Your task to perform on an android device: Search for Italian restaurants on Maps Image 0: 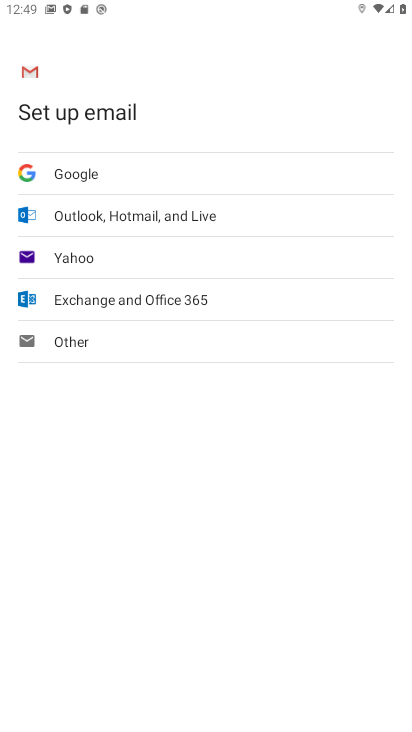
Step 0: press home button
Your task to perform on an android device: Search for Italian restaurants on Maps Image 1: 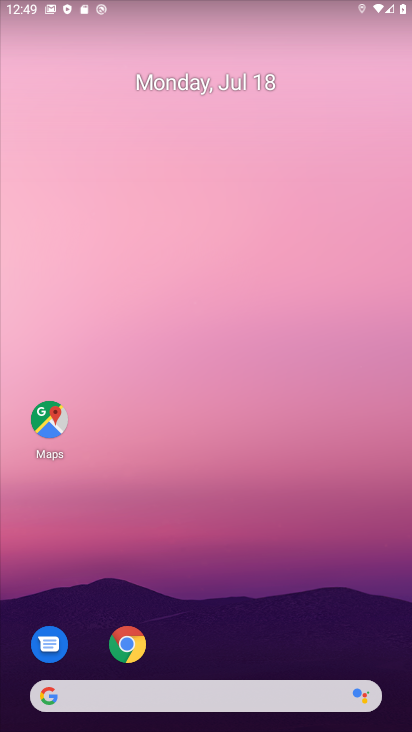
Step 1: click (43, 439)
Your task to perform on an android device: Search for Italian restaurants on Maps Image 2: 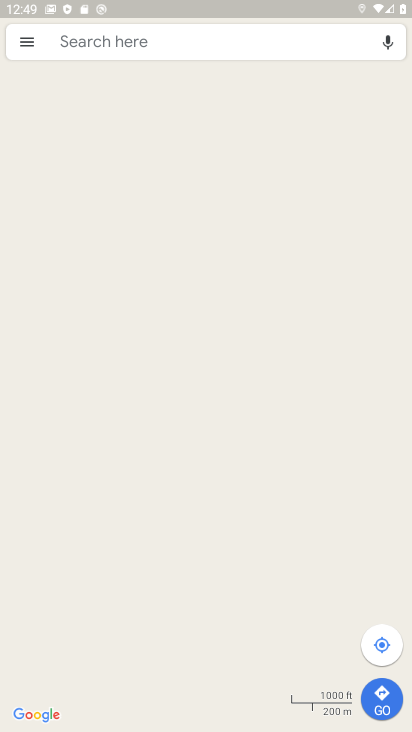
Step 2: click (164, 40)
Your task to perform on an android device: Search for Italian restaurants on Maps Image 3: 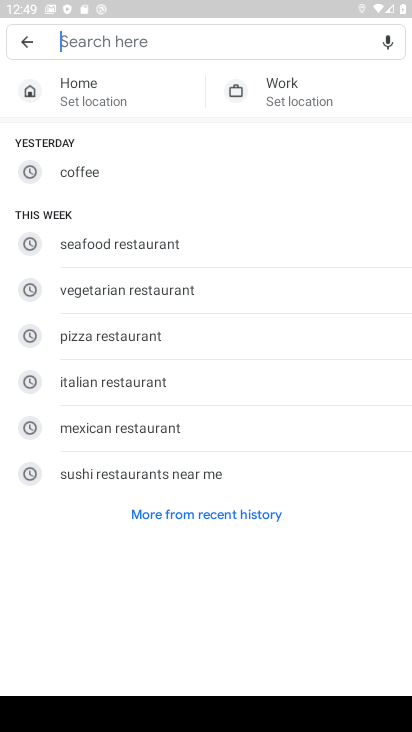
Step 3: type "italian restaurants"
Your task to perform on an android device: Search for Italian restaurants on Maps Image 4: 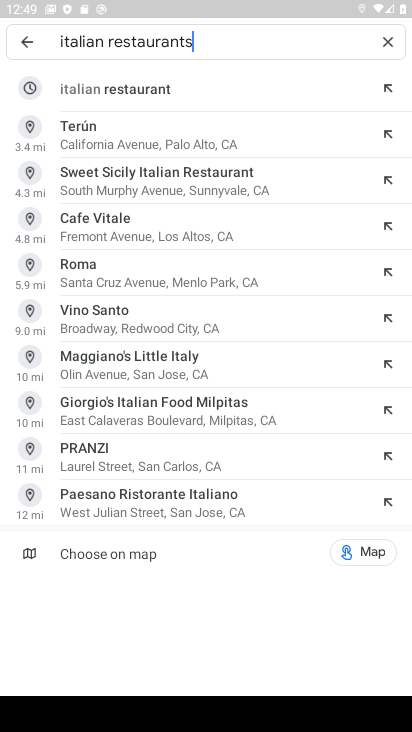
Step 4: click (66, 81)
Your task to perform on an android device: Search for Italian restaurants on Maps Image 5: 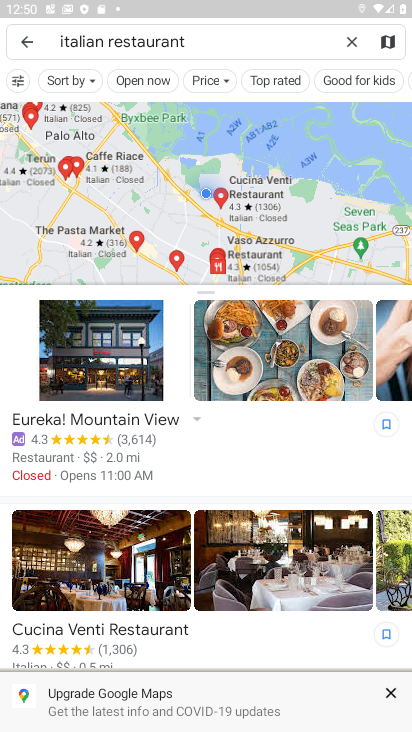
Step 5: task complete